Your task to perform on an android device: Search for seafood restaurants on Google Maps Image 0: 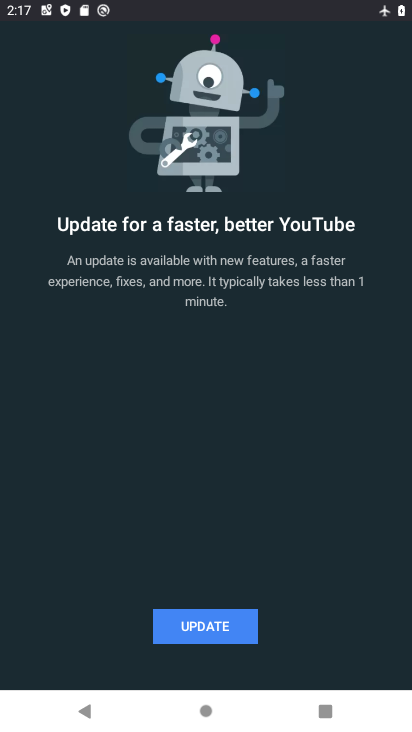
Step 0: press home button
Your task to perform on an android device: Search for seafood restaurants on Google Maps Image 1: 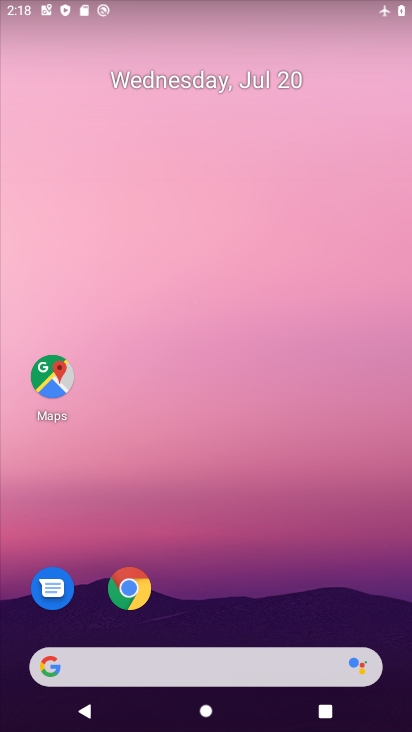
Step 1: drag from (205, 582) to (260, 105)
Your task to perform on an android device: Search for seafood restaurants on Google Maps Image 2: 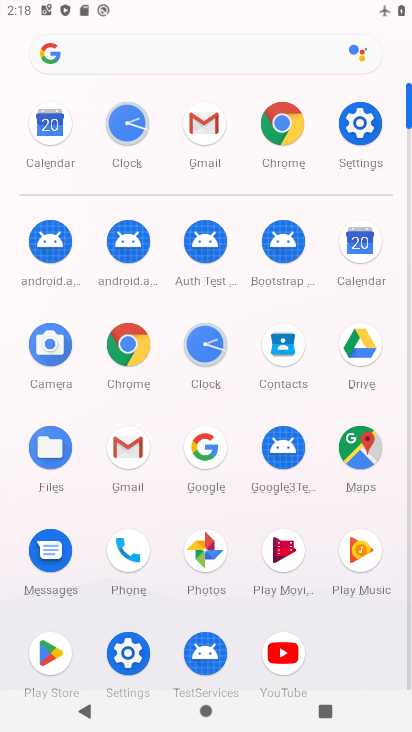
Step 2: click (368, 452)
Your task to perform on an android device: Search for seafood restaurants on Google Maps Image 3: 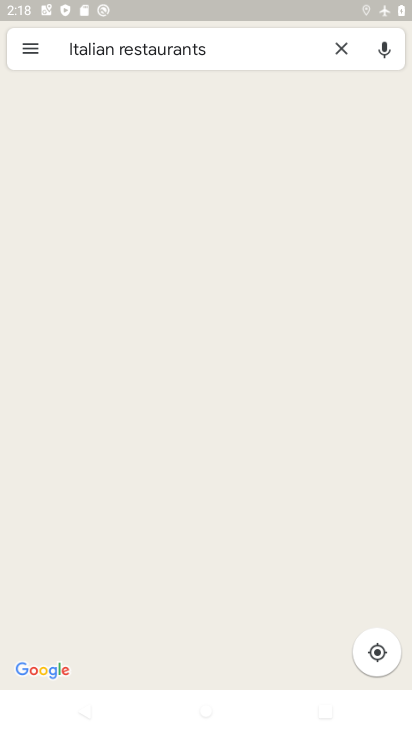
Step 3: click (339, 47)
Your task to perform on an android device: Search for seafood restaurants on Google Maps Image 4: 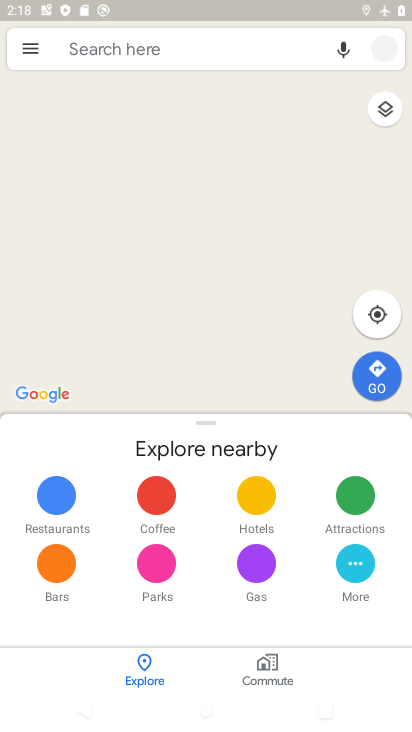
Step 4: click (277, 50)
Your task to perform on an android device: Search for seafood restaurants on Google Maps Image 5: 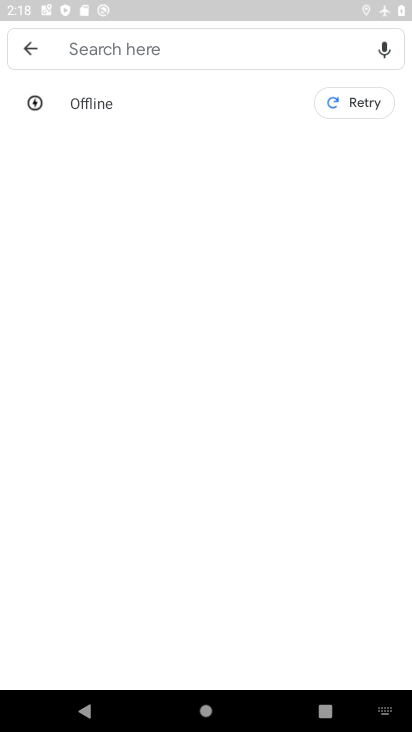
Step 5: type "seafood restaurants "
Your task to perform on an android device: Search for seafood restaurants on Google Maps Image 6: 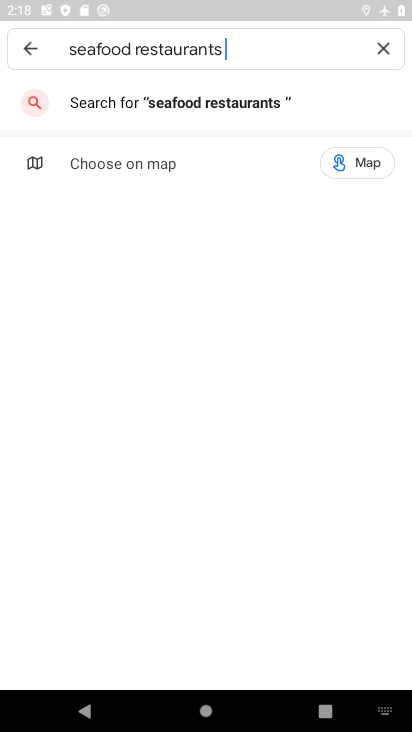
Step 6: press enter
Your task to perform on an android device: Search for seafood restaurants on Google Maps Image 7: 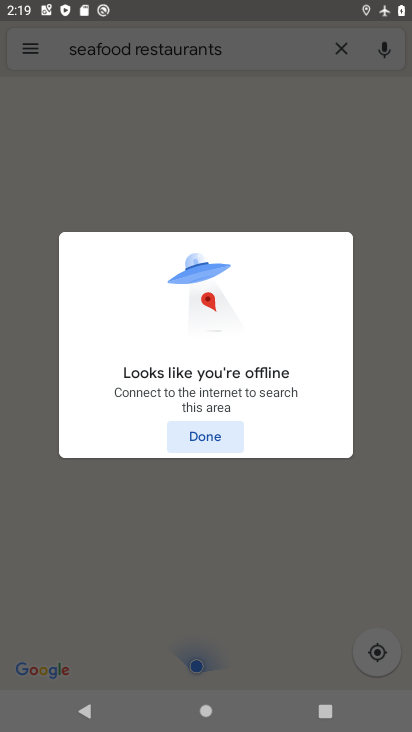
Step 7: task complete